Your task to perform on an android device: toggle show notifications on the lock screen Image 0: 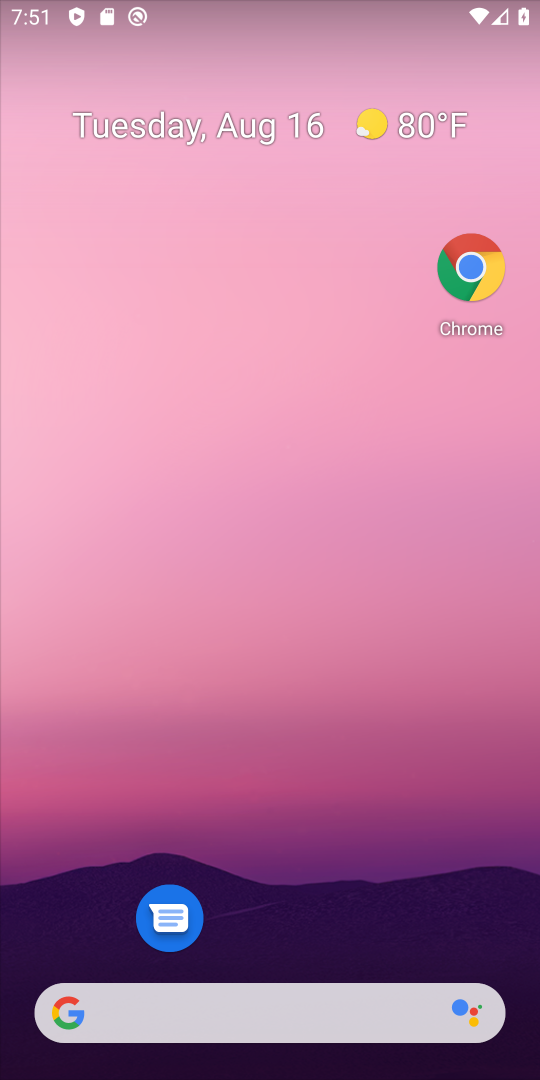
Step 0: drag from (335, 910) to (397, 118)
Your task to perform on an android device: toggle show notifications on the lock screen Image 1: 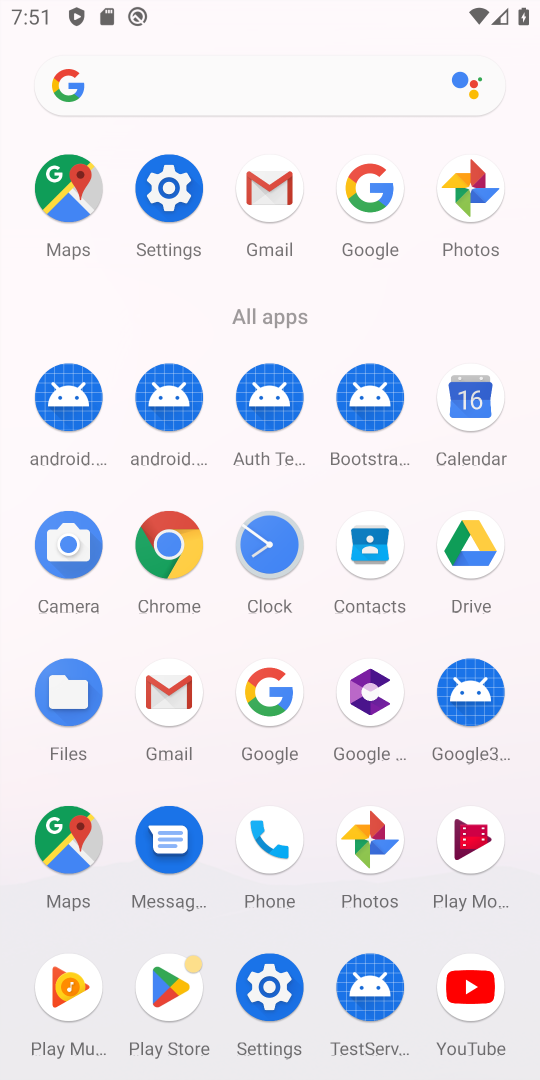
Step 1: click (175, 229)
Your task to perform on an android device: toggle show notifications on the lock screen Image 2: 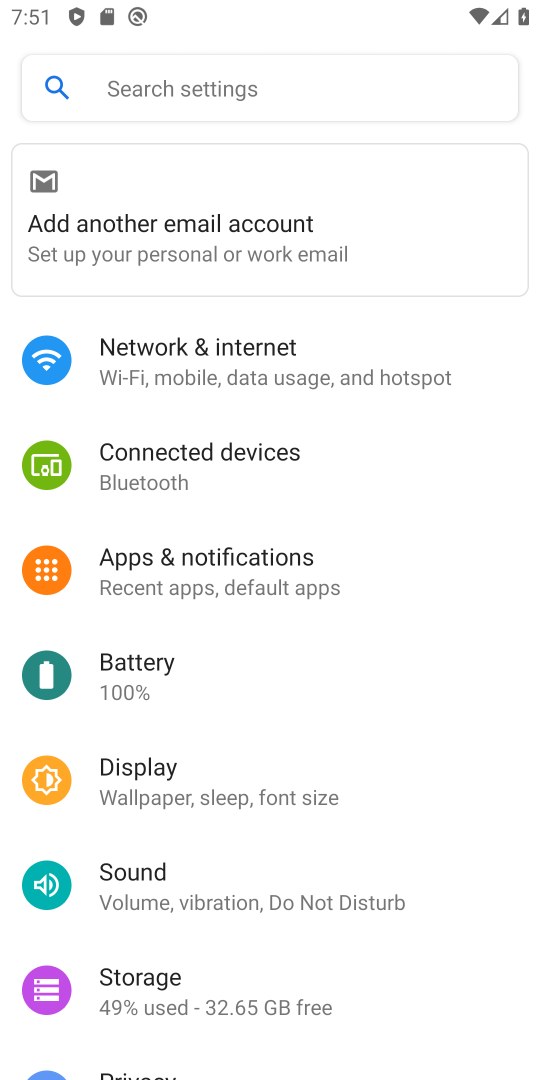
Step 2: click (200, 589)
Your task to perform on an android device: toggle show notifications on the lock screen Image 3: 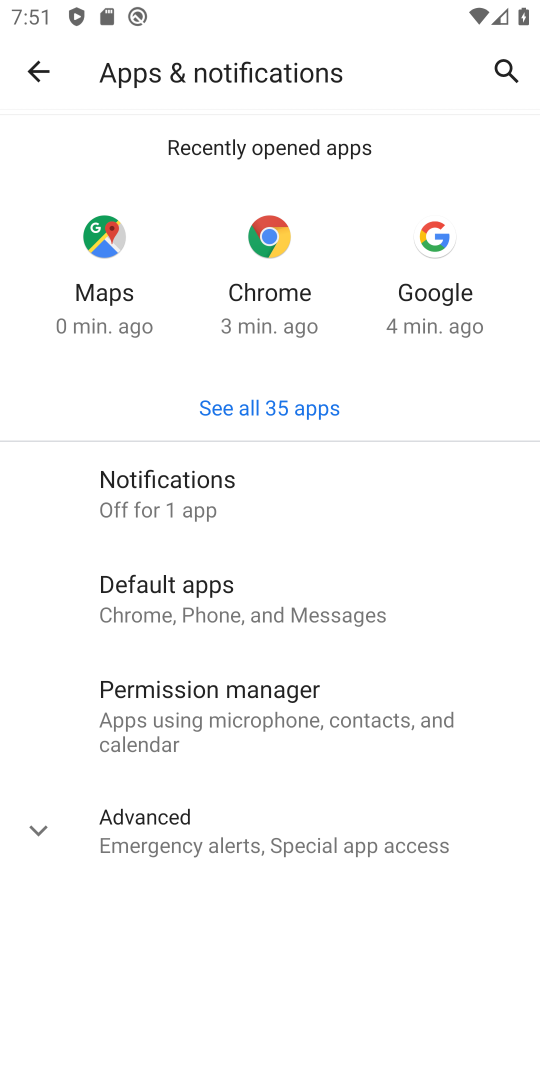
Step 3: click (258, 526)
Your task to perform on an android device: toggle show notifications on the lock screen Image 4: 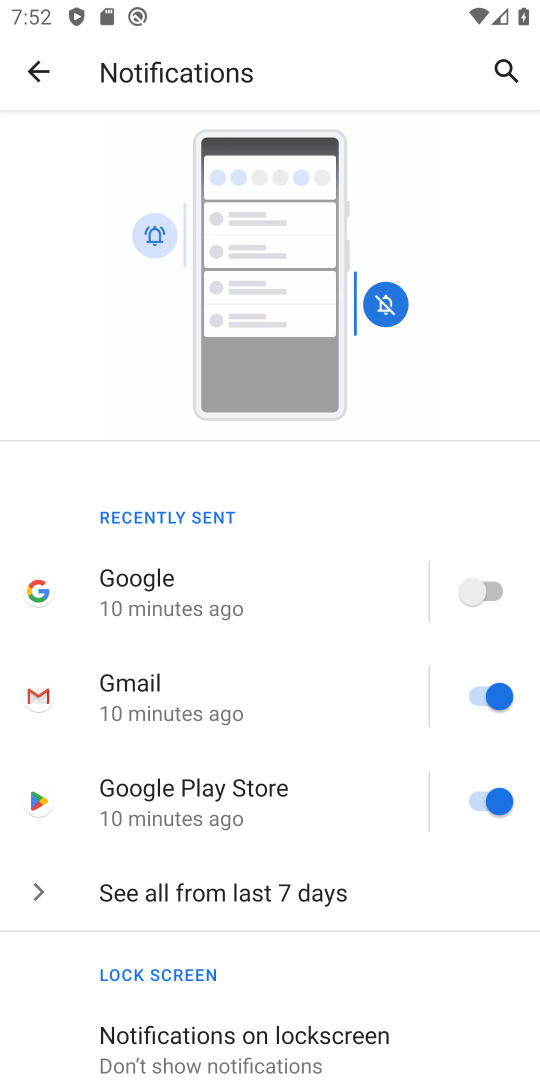
Step 4: drag from (247, 898) to (228, 219)
Your task to perform on an android device: toggle show notifications on the lock screen Image 5: 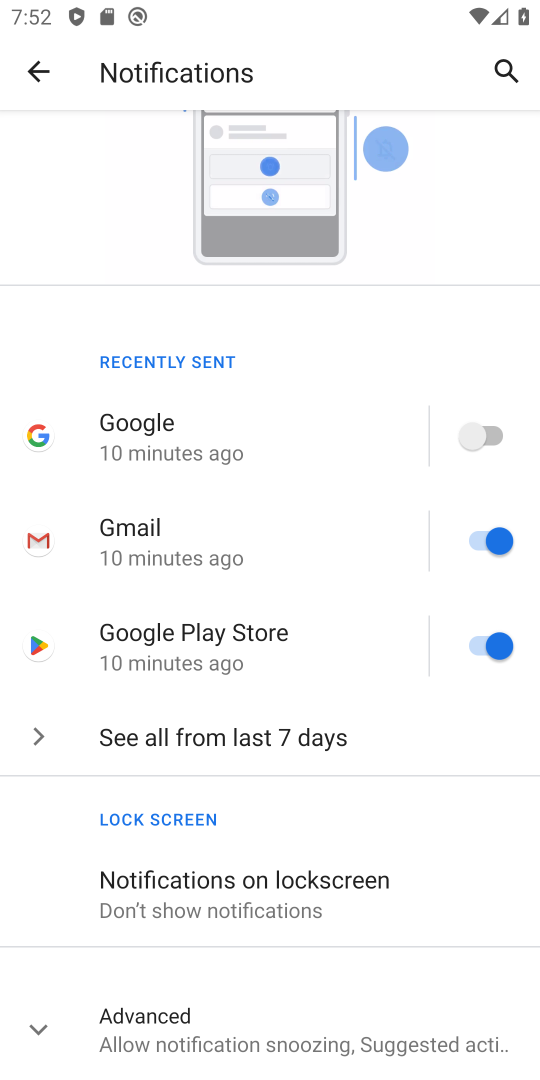
Step 5: click (310, 901)
Your task to perform on an android device: toggle show notifications on the lock screen Image 6: 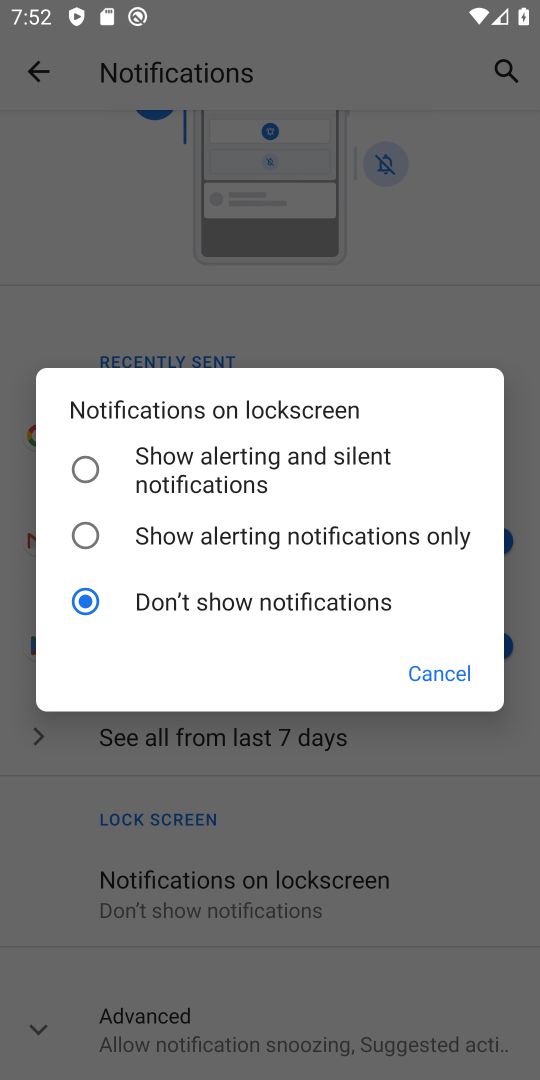
Step 6: click (104, 482)
Your task to perform on an android device: toggle show notifications on the lock screen Image 7: 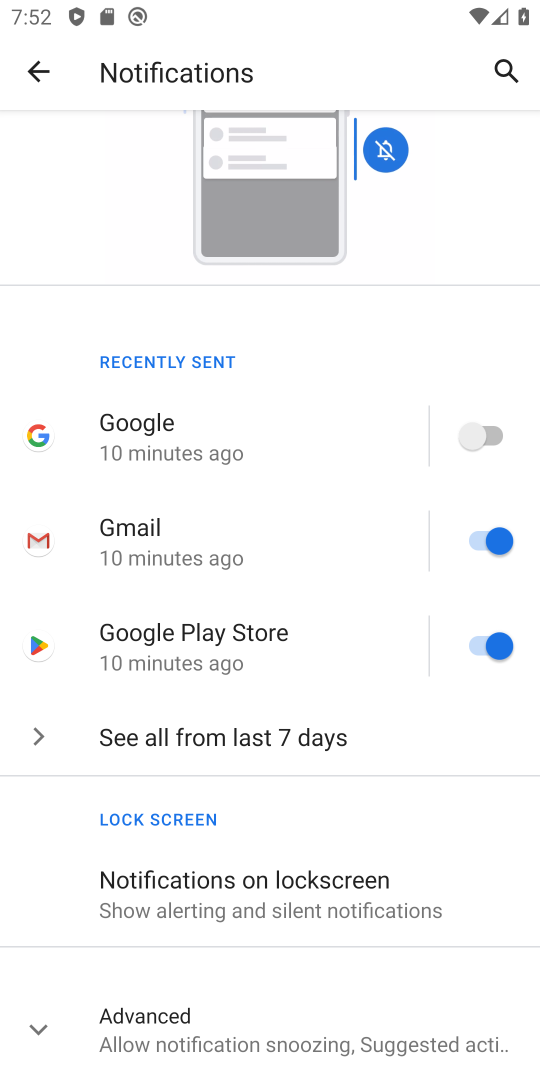
Step 7: task complete